Your task to perform on an android device: What's the weather going to be tomorrow? Image 0: 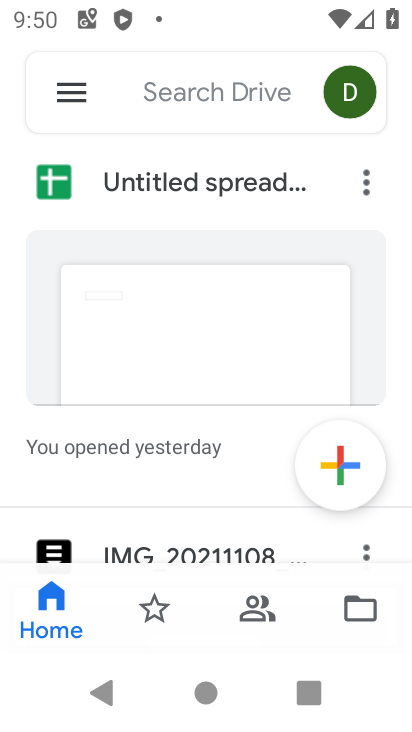
Step 0: press home button
Your task to perform on an android device: What's the weather going to be tomorrow? Image 1: 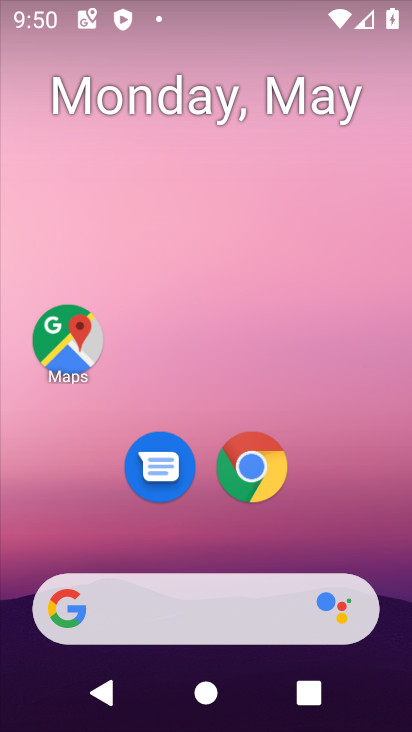
Step 1: drag from (7, 168) to (407, 234)
Your task to perform on an android device: What's the weather going to be tomorrow? Image 2: 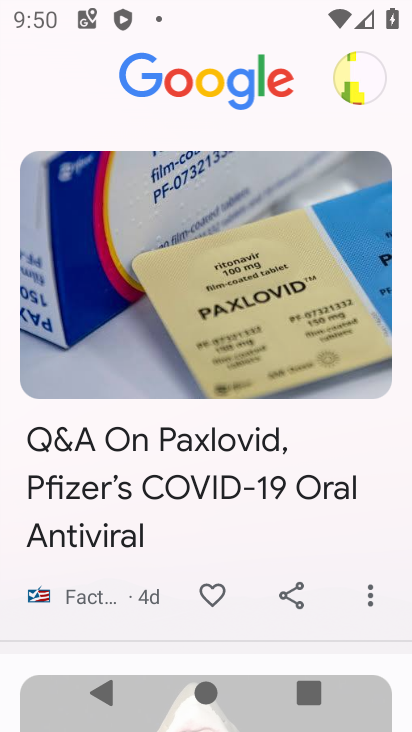
Step 2: press back button
Your task to perform on an android device: What's the weather going to be tomorrow? Image 3: 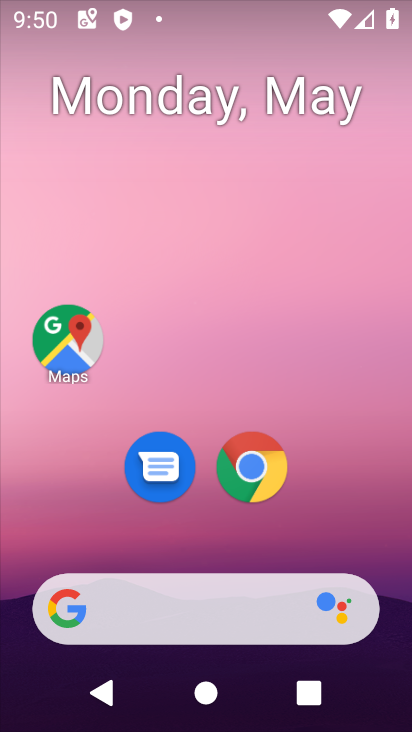
Step 3: click (188, 598)
Your task to perform on an android device: What's the weather going to be tomorrow? Image 4: 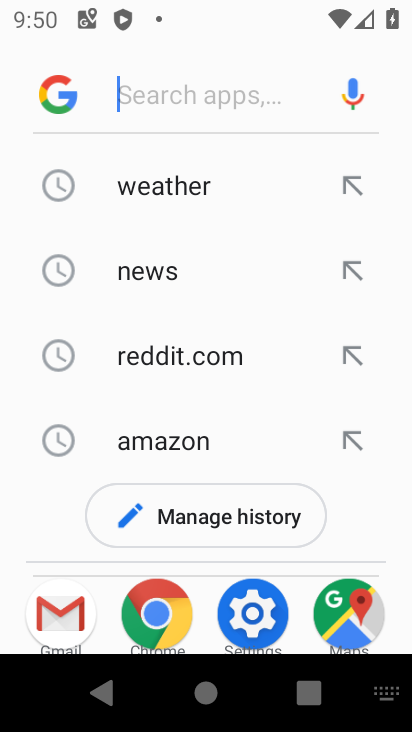
Step 4: click (149, 191)
Your task to perform on an android device: What's the weather going to be tomorrow? Image 5: 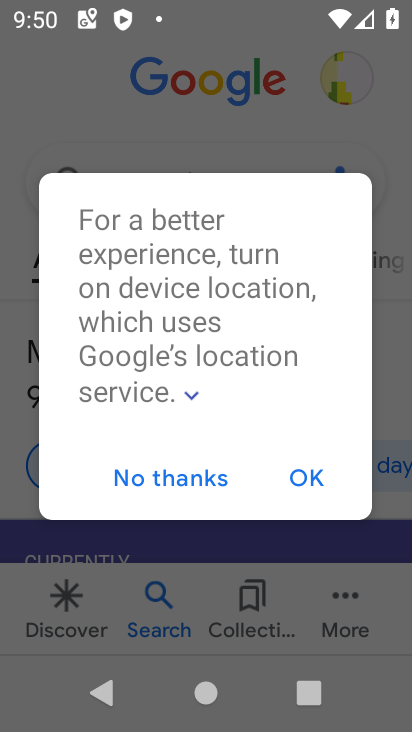
Step 5: click (299, 475)
Your task to perform on an android device: What's the weather going to be tomorrow? Image 6: 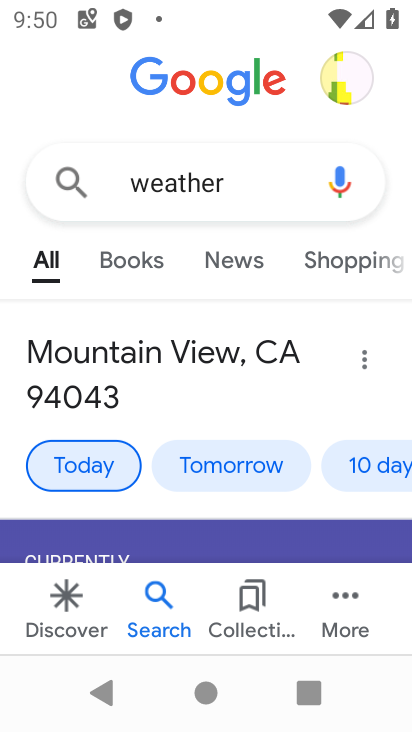
Step 6: click (231, 472)
Your task to perform on an android device: What's the weather going to be tomorrow? Image 7: 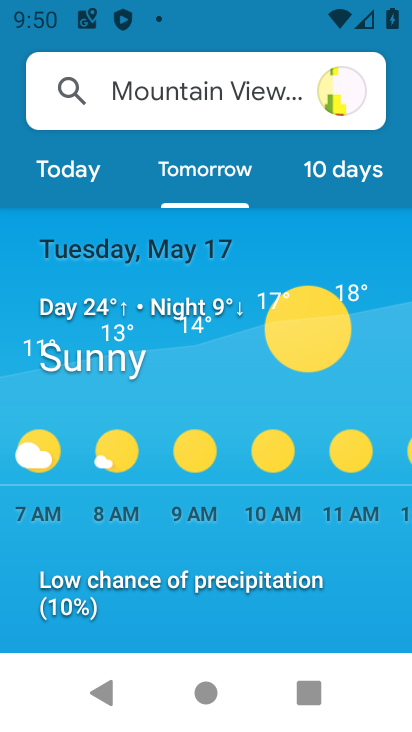
Step 7: drag from (347, 445) to (212, 463)
Your task to perform on an android device: What's the weather going to be tomorrow? Image 8: 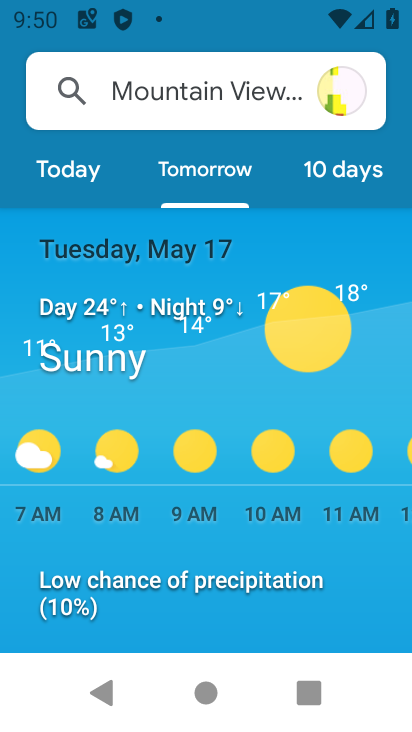
Step 8: click (336, 450)
Your task to perform on an android device: What's the weather going to be tomorrow? Image 9: 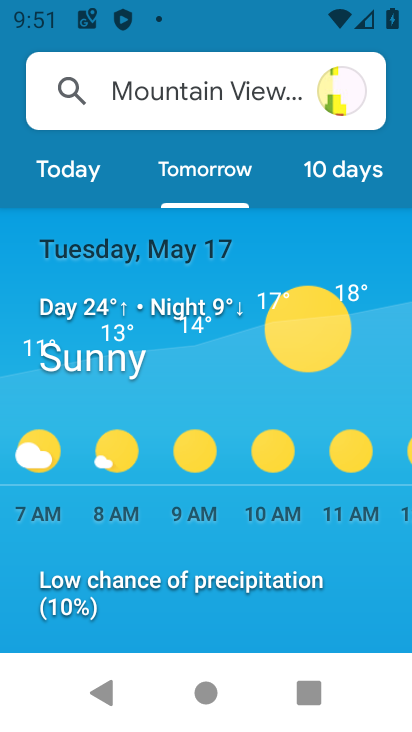
Step 9: click (327, 451)
Your task to perform on an android device: What's the weather going to be tomorrow? Image 10: 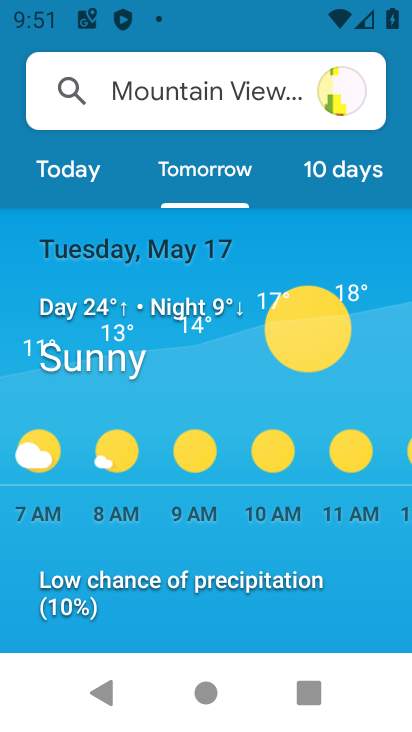
Step 10: task complete